Your task to perform on an android device: allow notifications from all sites in the chrome app Image 0: 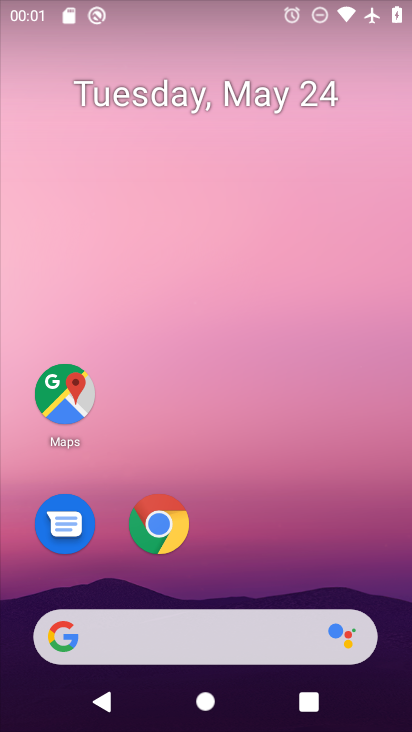
Step 0: click (160, 521)
Your task to perform on an android device: allow notifications from all sites in the chrome app Image 1: 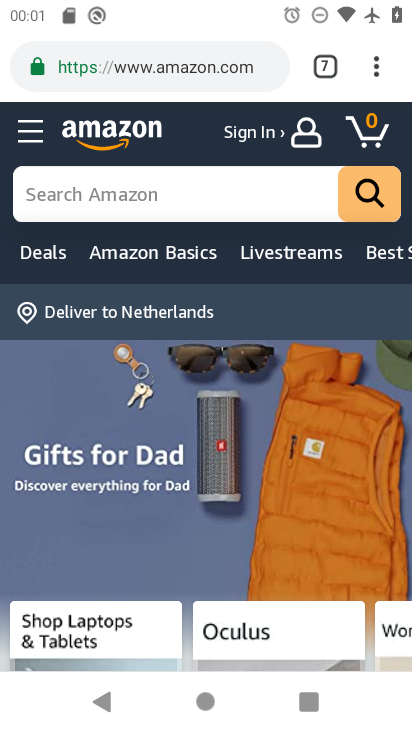
Step 1: drag from (369, 63) to (162, 536)
Your task to perform on an android device: allow notifications from all sites in the chrome app Image 2: 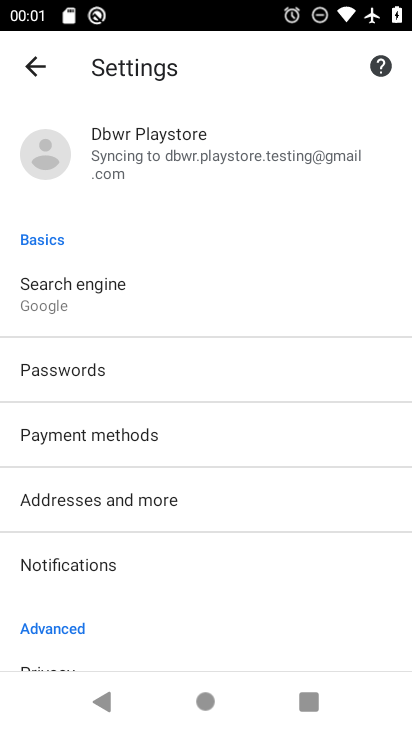
Step 2: drag from (211, 584) to (213, 347)
Your task to perform on an android device: allow notifications from all sites in the chrome app Image 3: 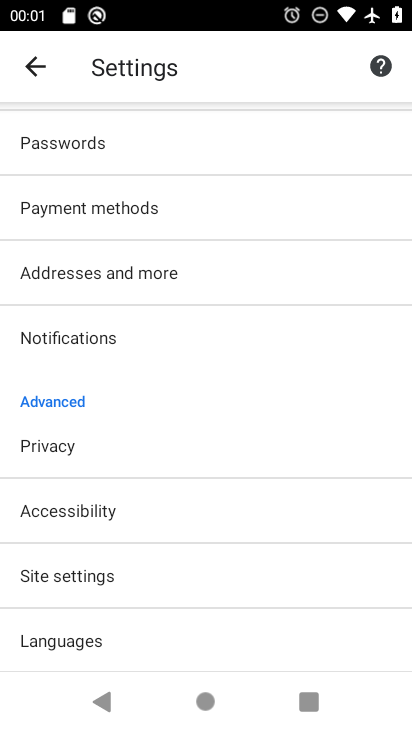
Step 3: click (165, 562)
Your task to perform on an android device: allow notifications from all sites in the chrome app Image 4: 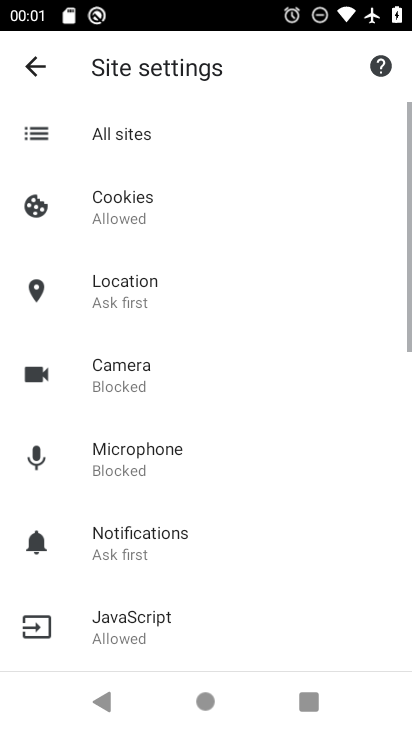
Step 4: click (149, 120)
Your task to perform on an android device: allow notifications from all sites in the chrome app Image 5: 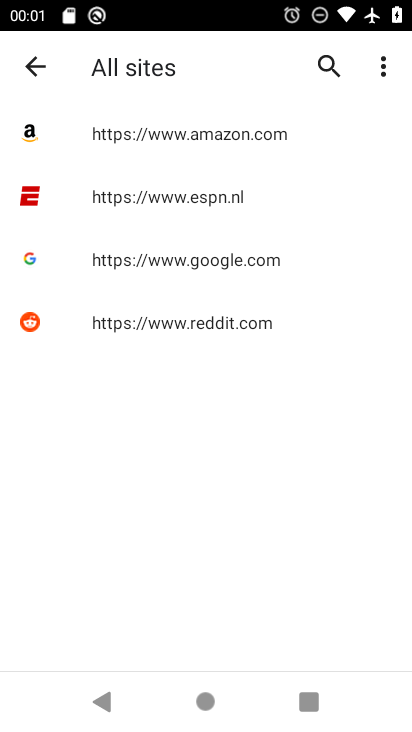
Step 5: click (200, 255)
Your task to perform on an android device: allow notifications from all sites in the chrome app Image 6: 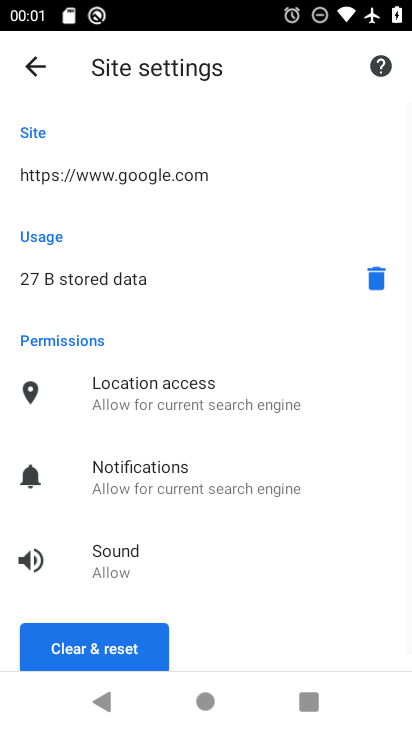
Step 6: drag from (215, 538) to (232, 369)
Your task to perform on an android device: allow notifications from all sites in the chrome app Image 7: 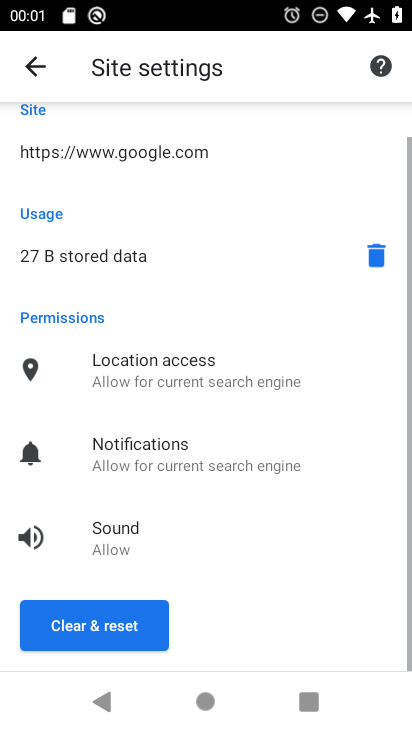
Step 7: click (190, 448)
Your task to perform on an android device: allow notifications from all sites in the chrome app Image 8: 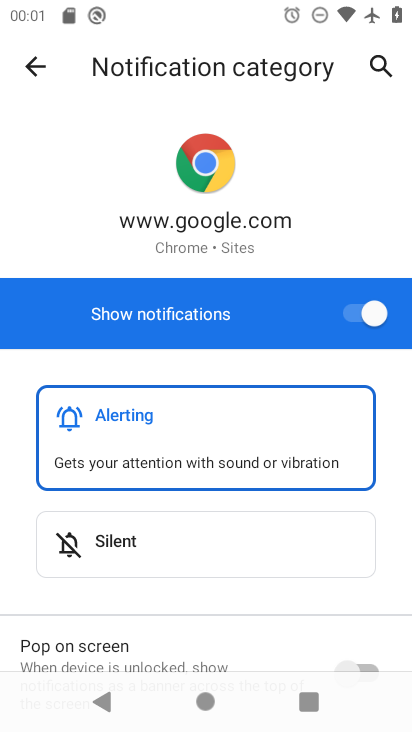
Step 8: task complete